Your task to perform on an android device: Go to settings Image 0: 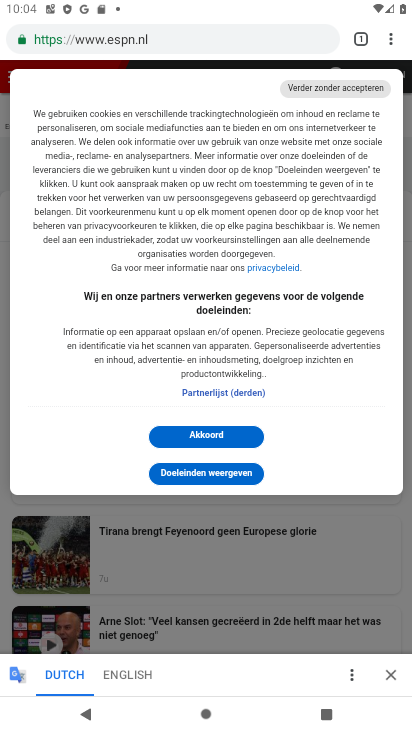
Step 0: press home button
Your task to perform on an android device: Go to settings Image 1: 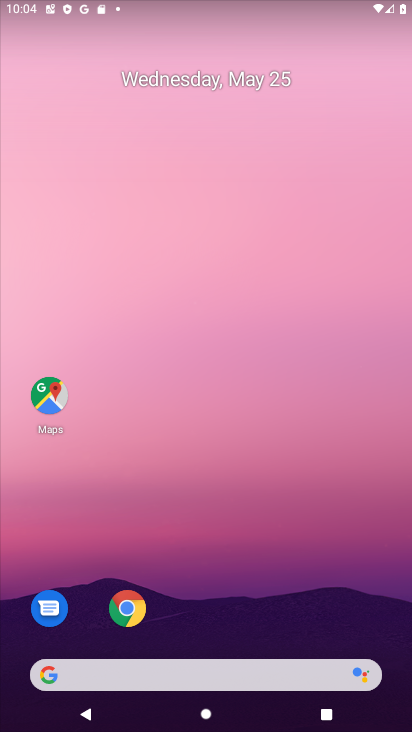
Step 1: drag from (276, 591) to (306, 2)
Your task to perform on an android device: Go to settings Image 2: 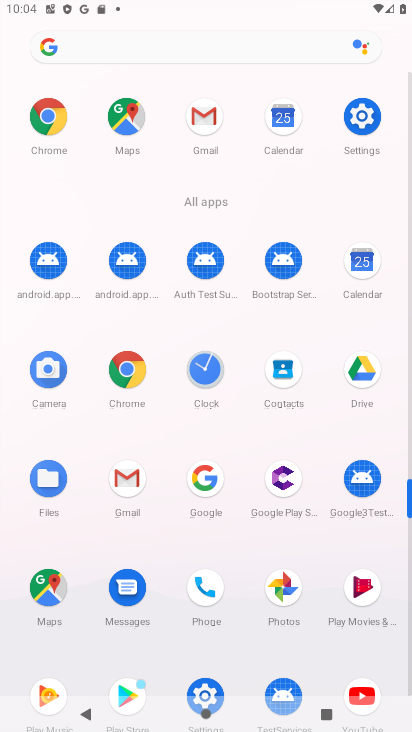
Step 2: click (370, 93)
Your task to perform on an android device: Go to settings Image 3: 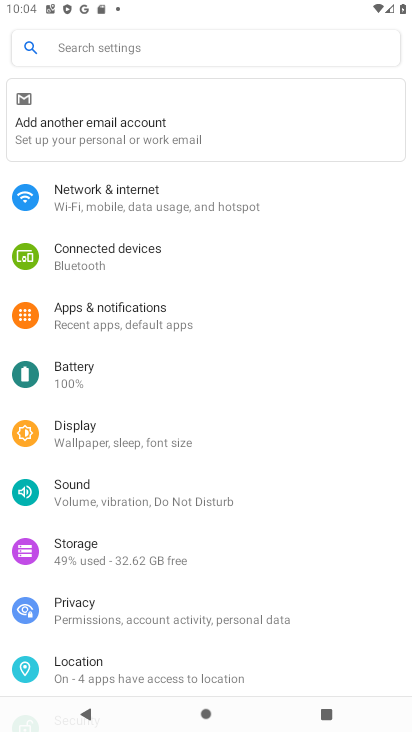
Step 3: task complete